Your task to perform on an android device: change the clock display to digital Image 0: 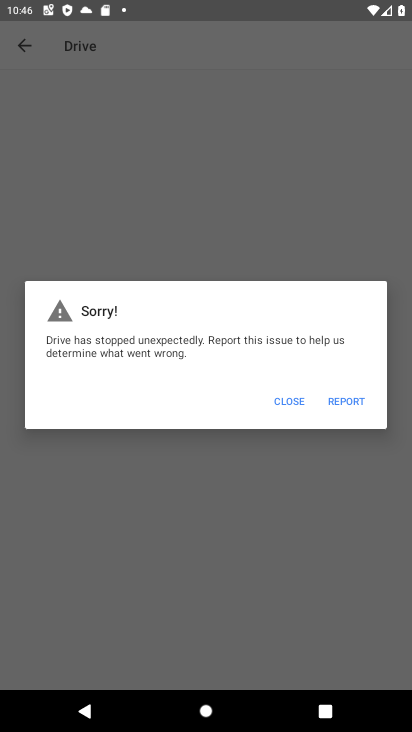
Step 0: press home button
Your task to perform on an android device: change the clock display to digital Image 1: 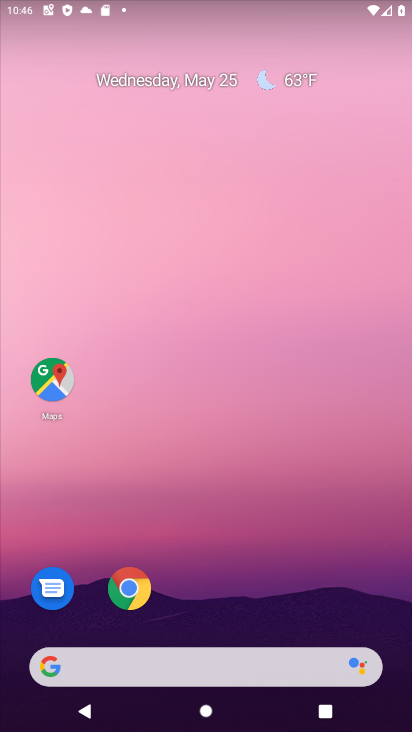
Step 1: drag from (324, 622) to (331, 114)
Your task to perform on an android device: change the clock display to digital Image 2: 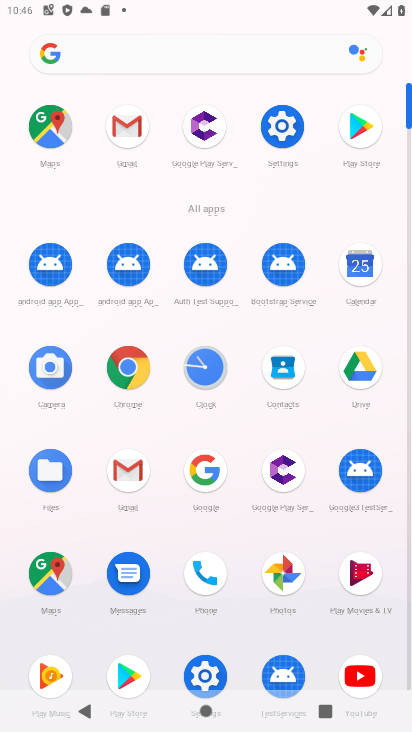
Step 2: click (206, 353)
Your task to perform on an android device: change the clock display to digital Image 3: 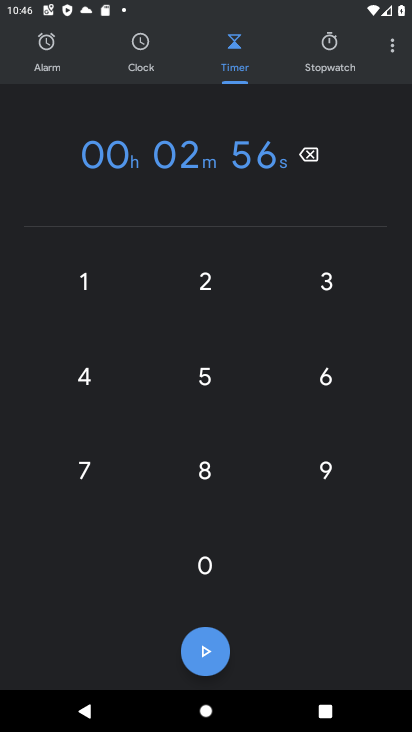
Step 3: click (402, 45)
Your task to perform on an android device: change the clock display to digital Image 4: 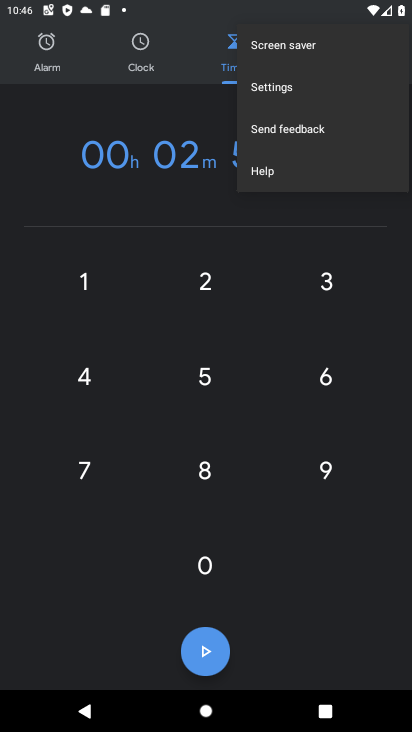
Step 4: click (288, 86)
Your task to perform on an android device: change the clock display to digital Image 5: 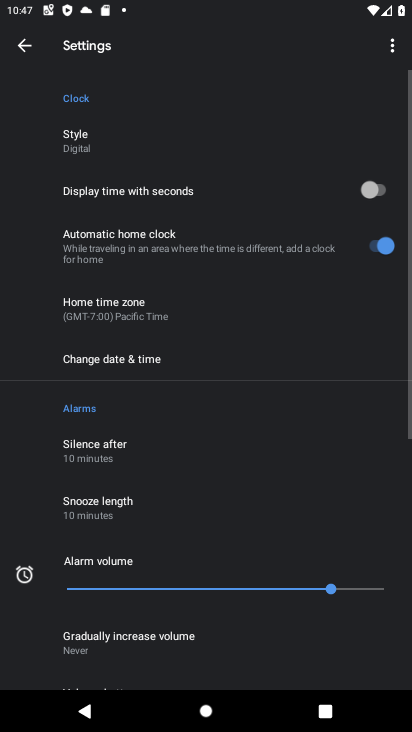
Step 5: click (136, 138)
Your task to perform on an android device: change the clock display to digital Image 6: 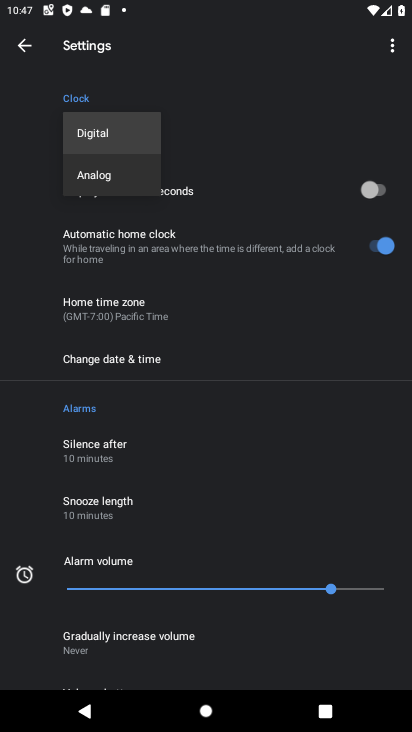
Step 6: task complete